Your task to perform on an android device: empty trash in google photos Image 0: 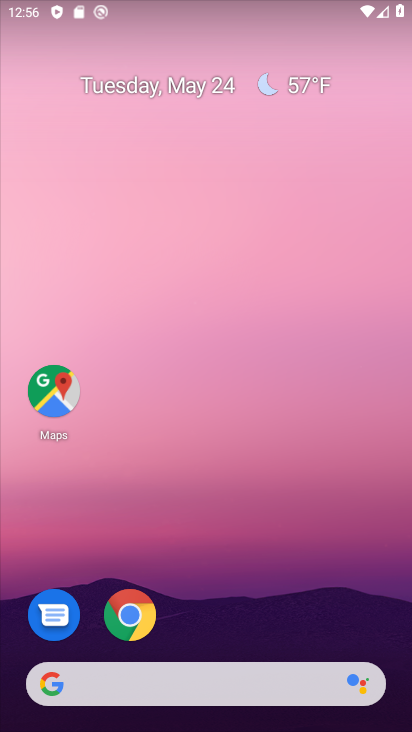
Step 0: drag from (269, 665) to (251, 181)
Your task to perform on an android device: empty trash in google photos Image 1: 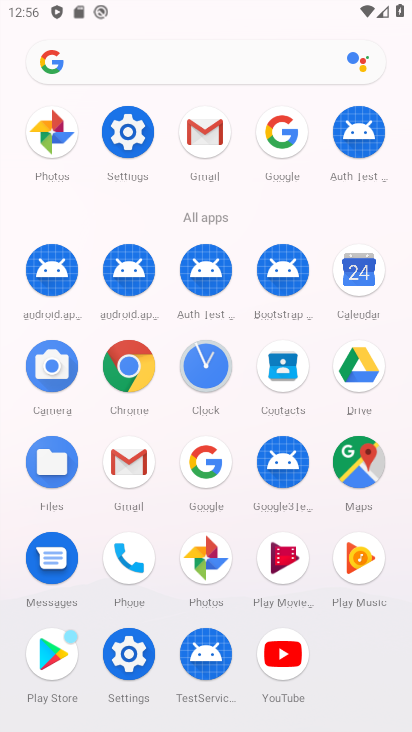
Step 1: click (211, 552)
Your task to perform on an android device: empty trash in google photos Image 2: 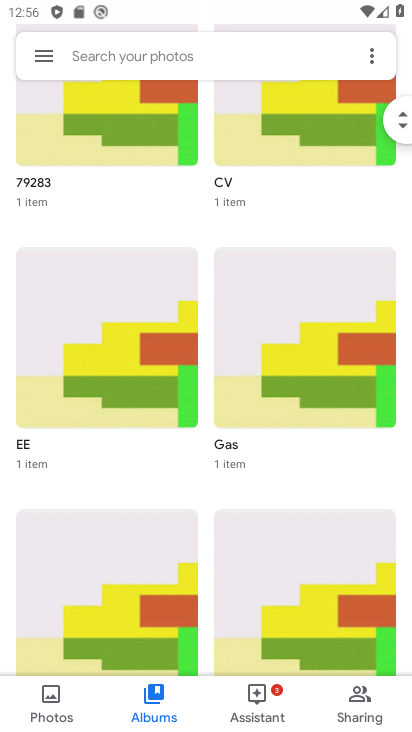
Step 2: click (37, 58)
Your task to perform on an android device: empty trash in google photos Image 3: 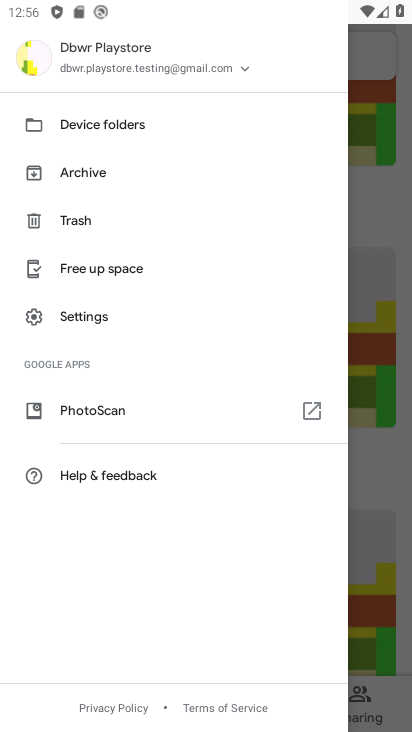
Step 3: click (77, 224)
Your task to perform on an android device: empty trash in google photos Image 4: 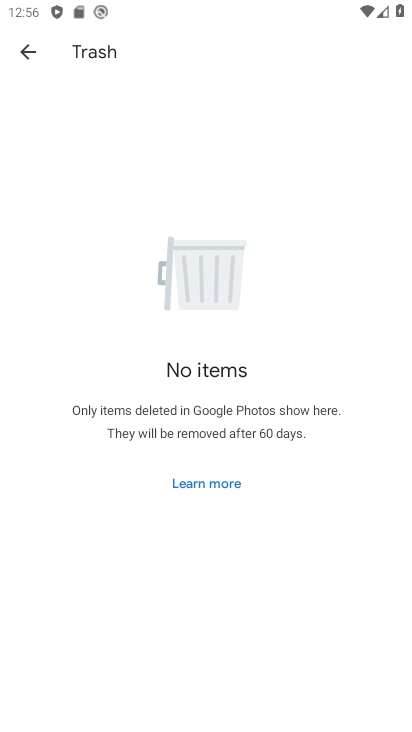
Step 4: task complete